Your task to perform on an android device: see tabs open on other devices in the chrome app Image 0: 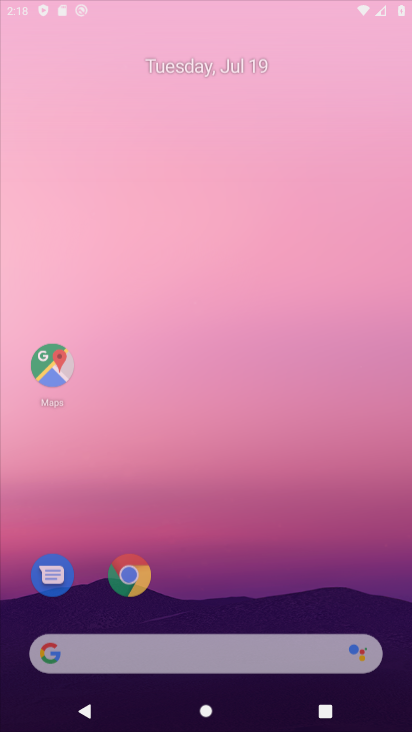
Step 0: press home button
Your task to perform on an android device: see tabs open on other devices in the chrome app Image 1: 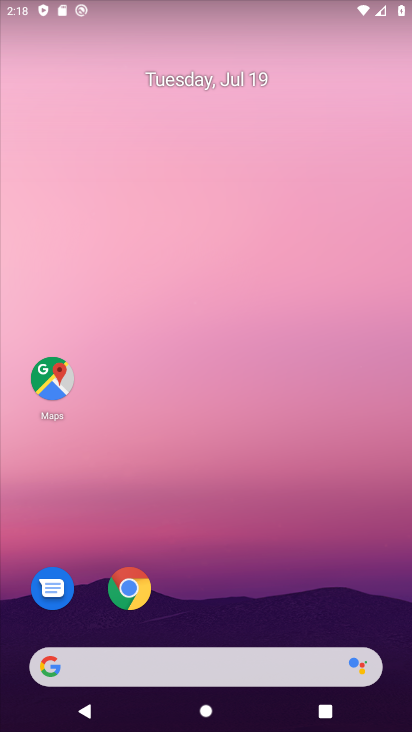
Step 1: drag from (240, 619) to (244, 96)
Your task to perform on an android device: see tabs open on other devices in the chrome app Image 2: 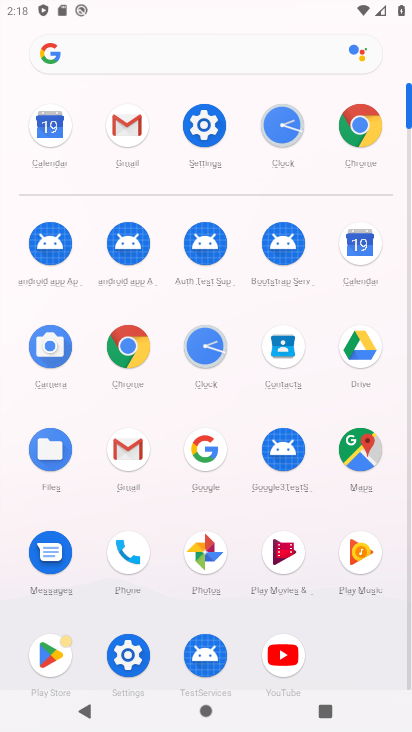
Step 2: click (362, 129)
Your task to perform on an android device: see tabs open on other devices in the chrome app Image 3: 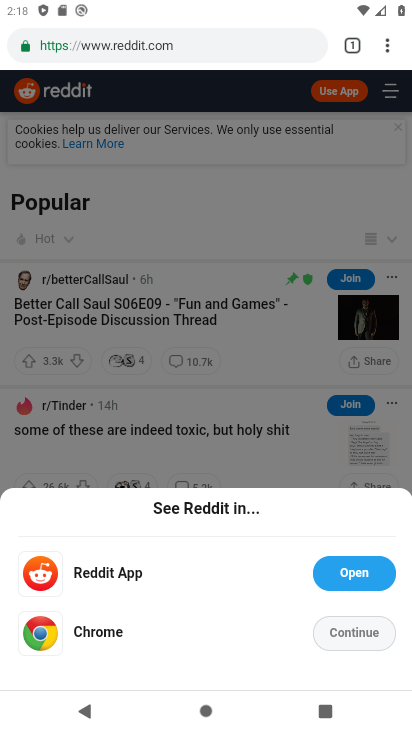
Step 3: task complete